Your task to perform on an android device: turn off wifi Image 0: 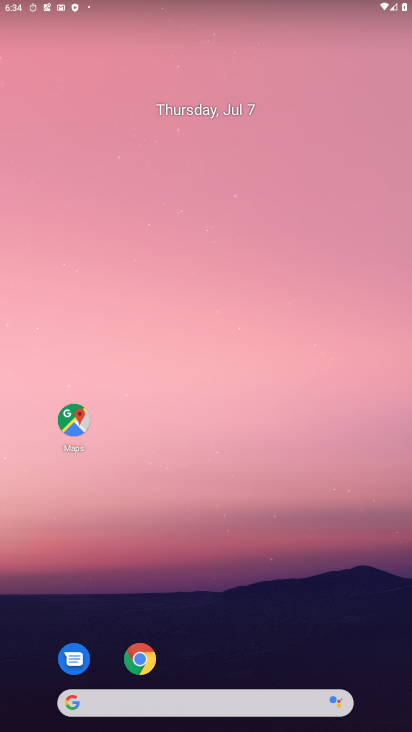
Step 0: drag from (169, 7) to (257, 496)
Your task to perform on an android device: turn off wifi Image 1: 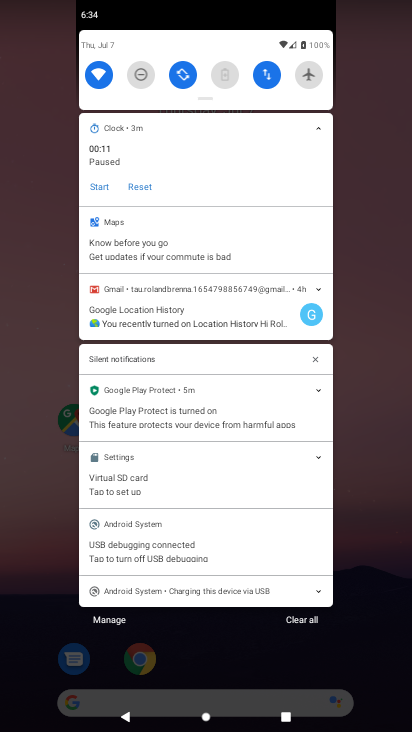
Step 1: click (101, 71)
Your task to perform on an android device: turn off wifi Image 2: 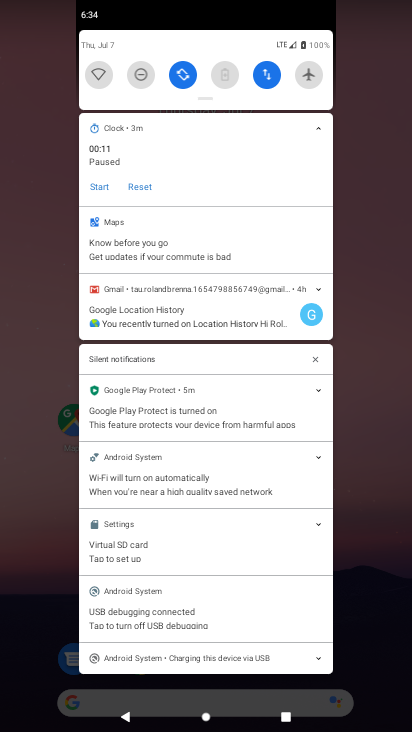
Step 2: task complete